Your task to perform on an android device: Open my contact list Image 0: 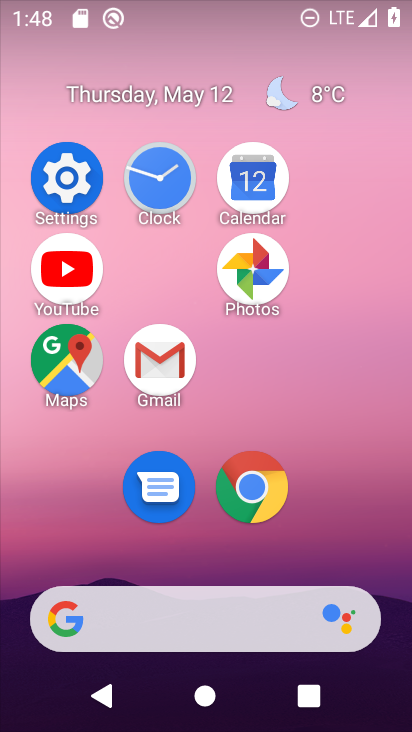
Step 0: drag from (344, 470) to (323, 118)
Your task to perform on an android device: Open my contact list Image 1: 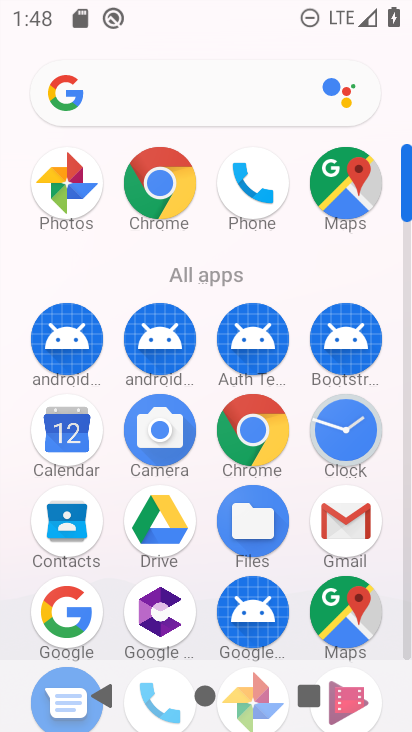
Step 1: drag from (77, 521) to (158, 283)
Your task to perform on an android device: Open my contact list Image 2: 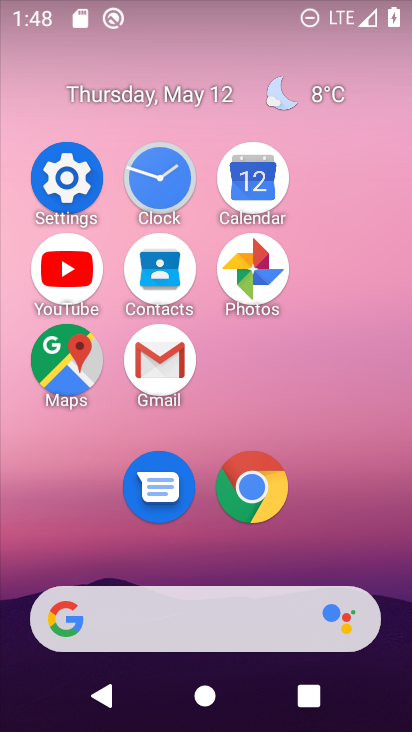
Step 2: click (176, 277)
Your task to perform on an android device: Open my contact list Image 3: 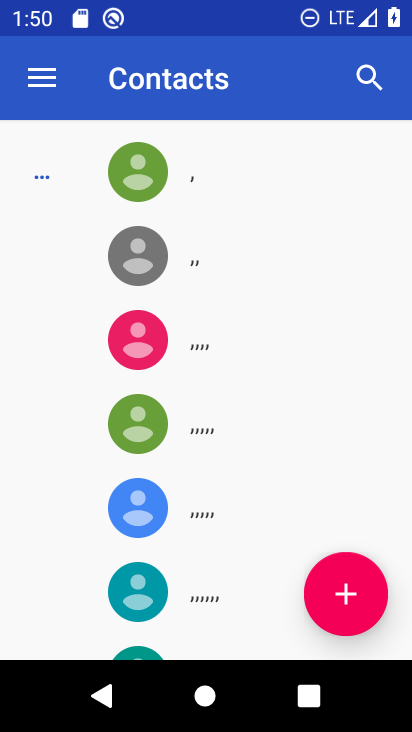
Step 3: task complete